Your task to perform on an android device: open the mobile data screen to see how much data has been used Image 0: 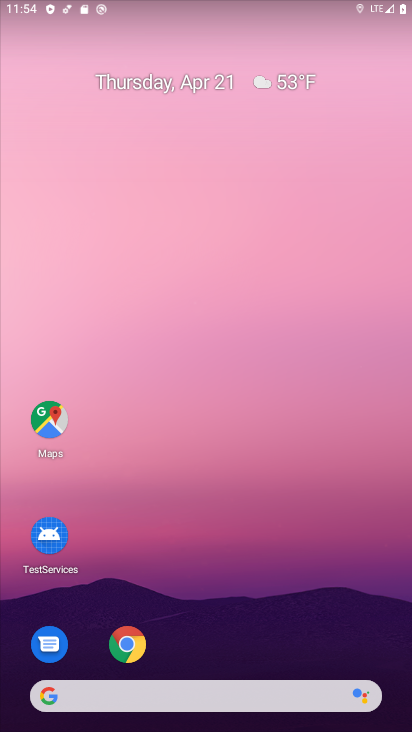
Step 0: drag from (223, 418) to (219, 1)
Your task to perform on an android device: open the mobile data screen to see how much data has been used Image 1: 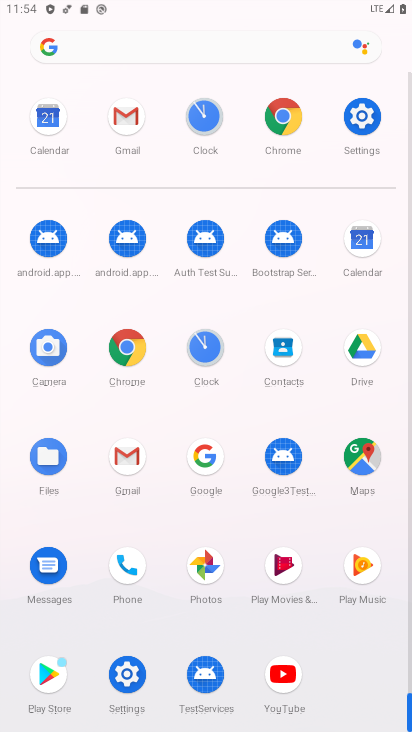
Step 1: click (361, 108)
Your task to perform on an android device: open the mobile data screen to see how much data has been used Image 2: 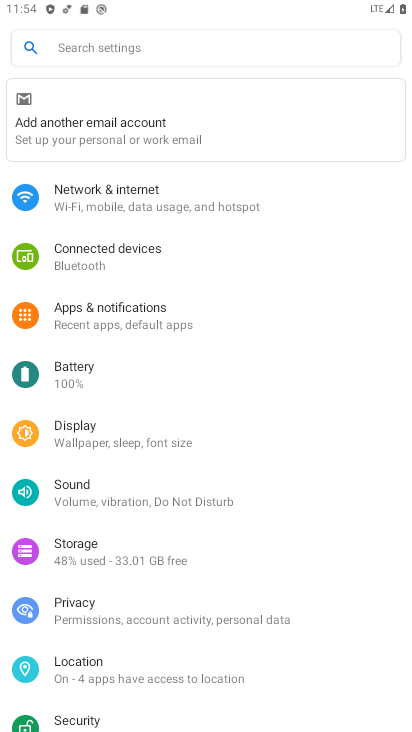
Step 2: click (161, 208)
Your task to perform on an android device: open the mobile data screen to see how much data has been used Image 3: 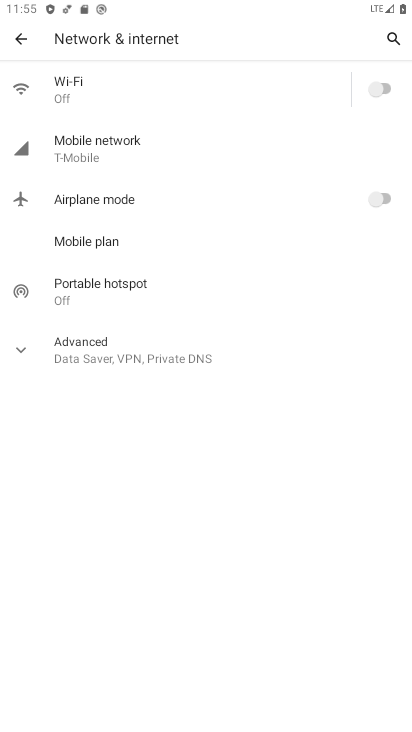
Step 3: click (175, 148)
Your task to perform on an android device: open the mobile data screen to see how much data has been used Image 4: 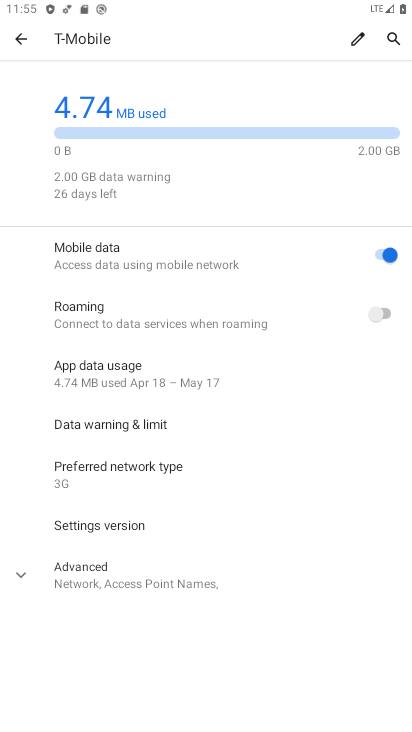
Step 4: click (316, 146)
Your task to perform on an android device: open the mobile data screen to see how much data has been used Image 5: 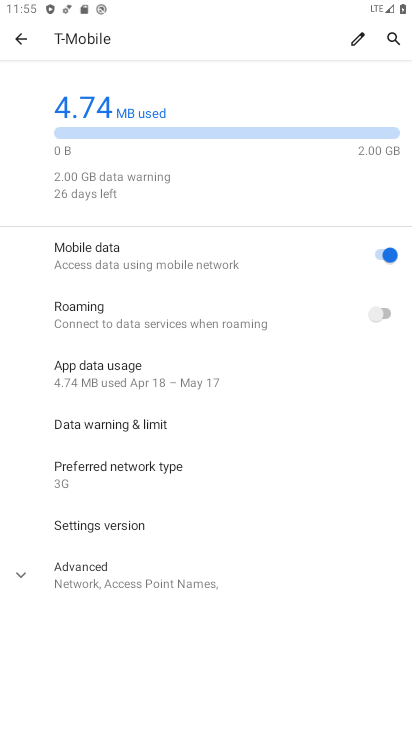
Step 5: task complete